Your task to perform on an android device: Add "acer predator" to the cart on amazon Image 0: 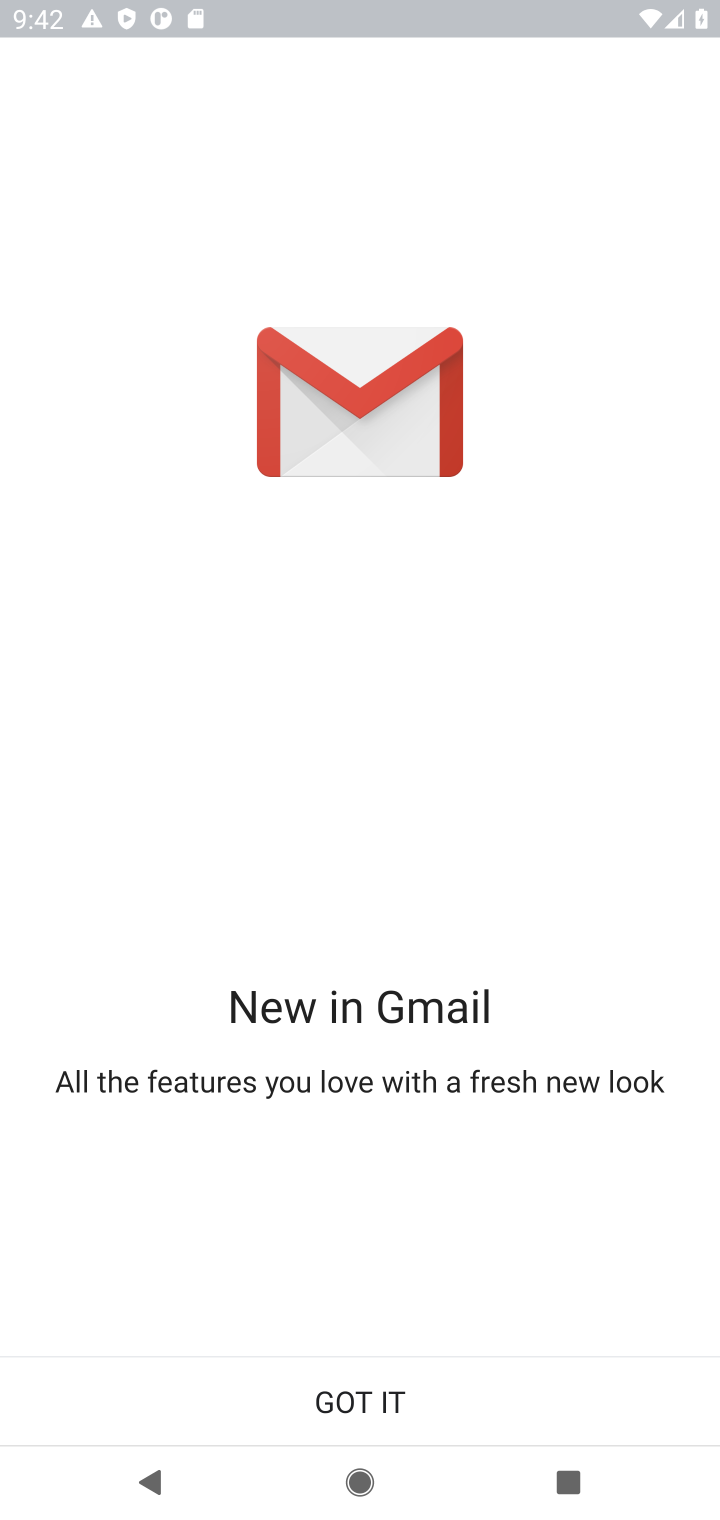
Step 0: press home button
Your task to perform on an android device: Add "acer predator" to the cart on amazon Image 1: 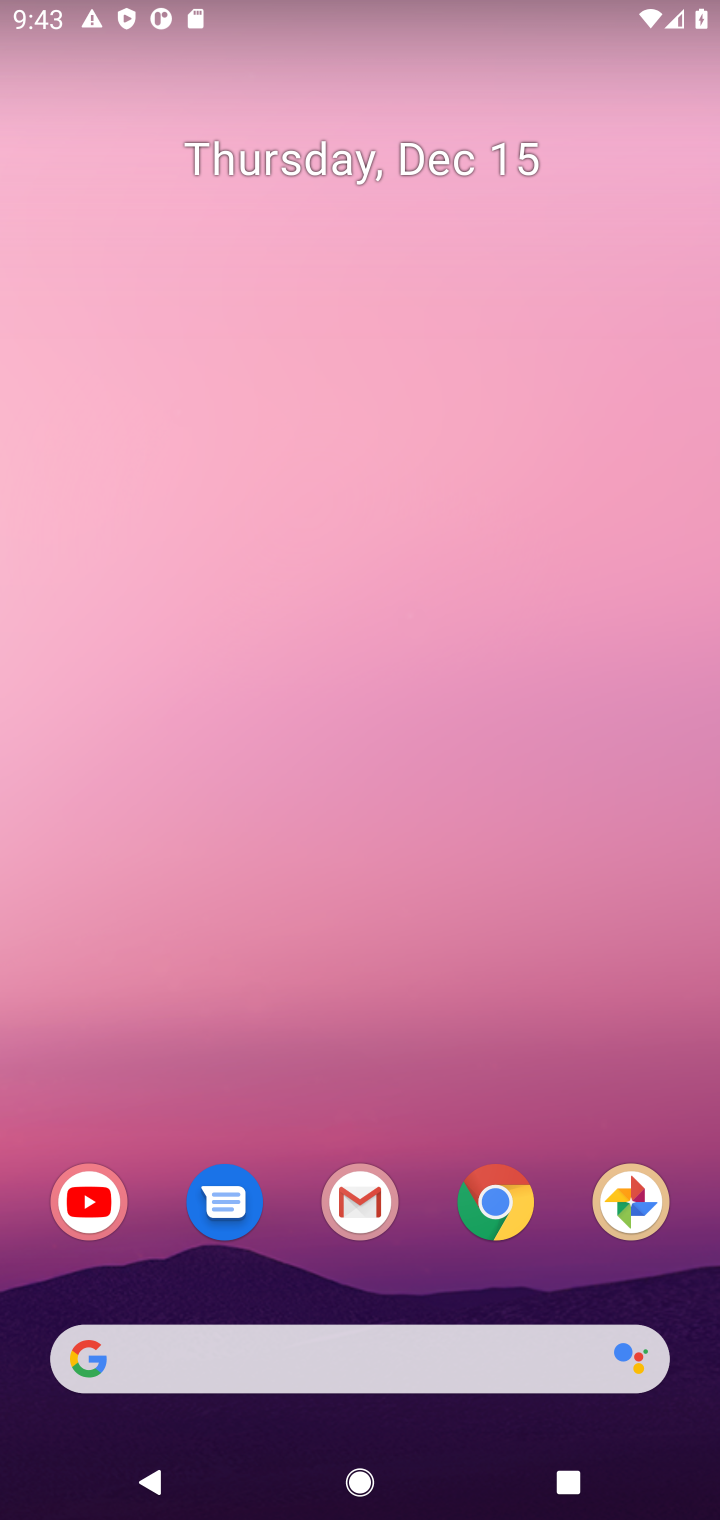
Step 1: click (488, 1208)
Your task to perform on an android device: Add "acer predator" to the cart on amazon Image 2: 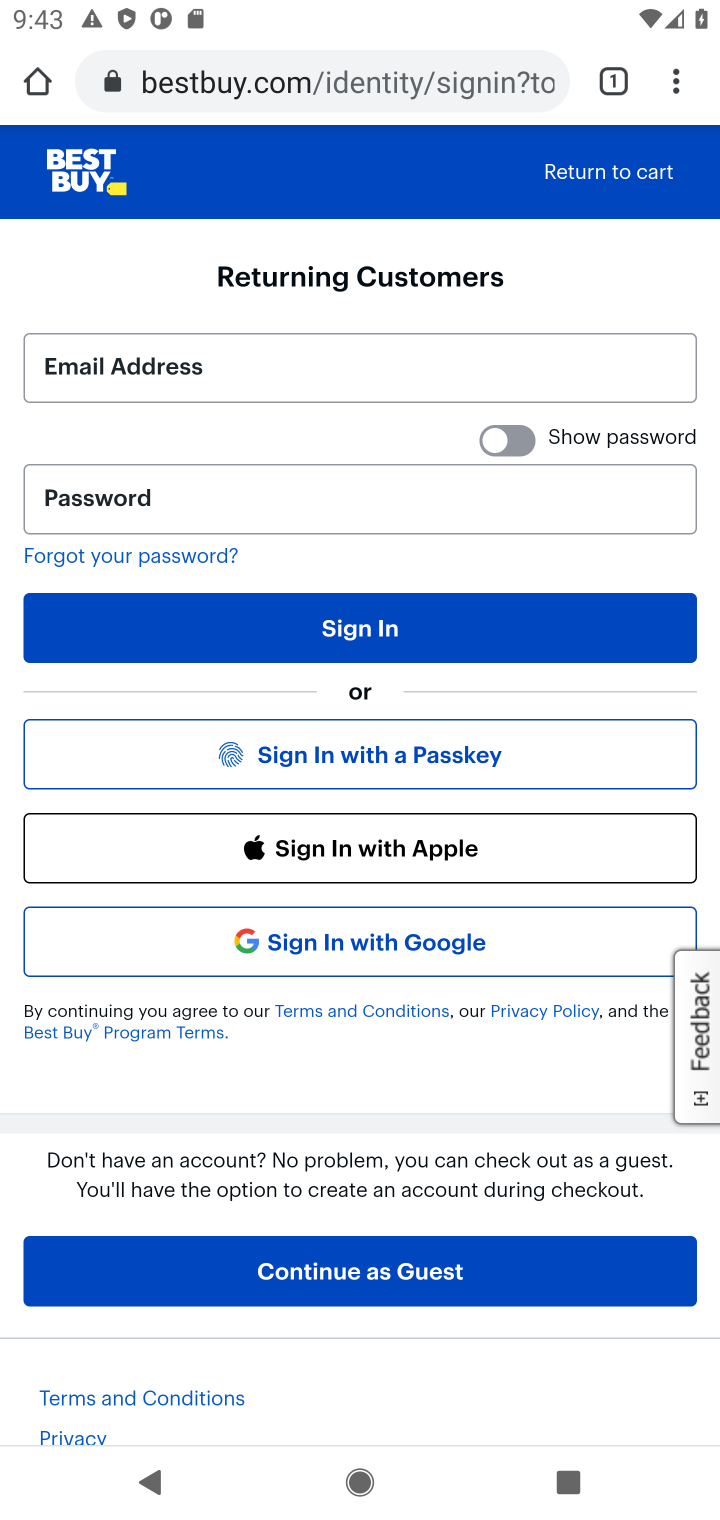
Step 2: click (228, 88)
Your task to perform on an android device: Add "acer predator" to the cart on amazon Image 3: 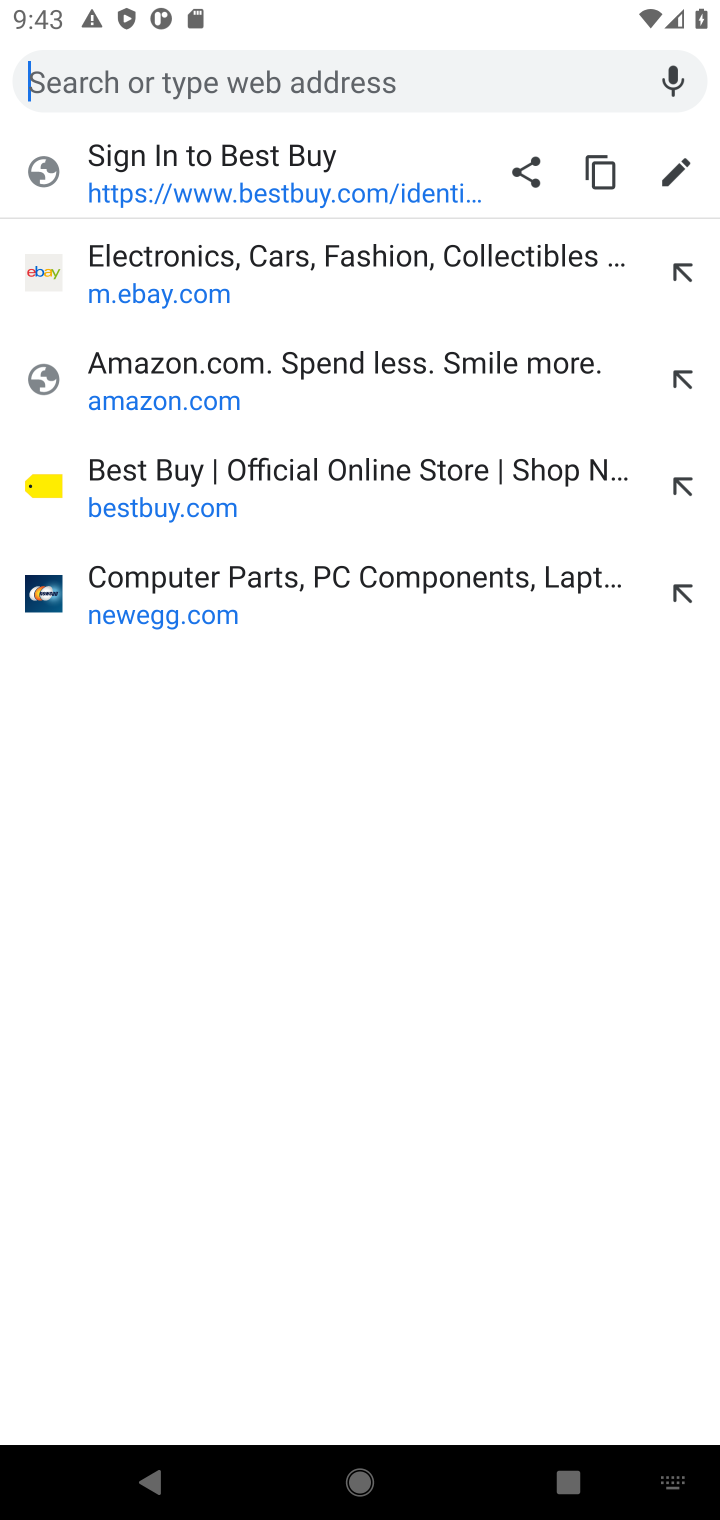
Step 3: click (145, 372)
Your task to perform on an android device: Add "acer predator" to the cart on amazon Image 4: 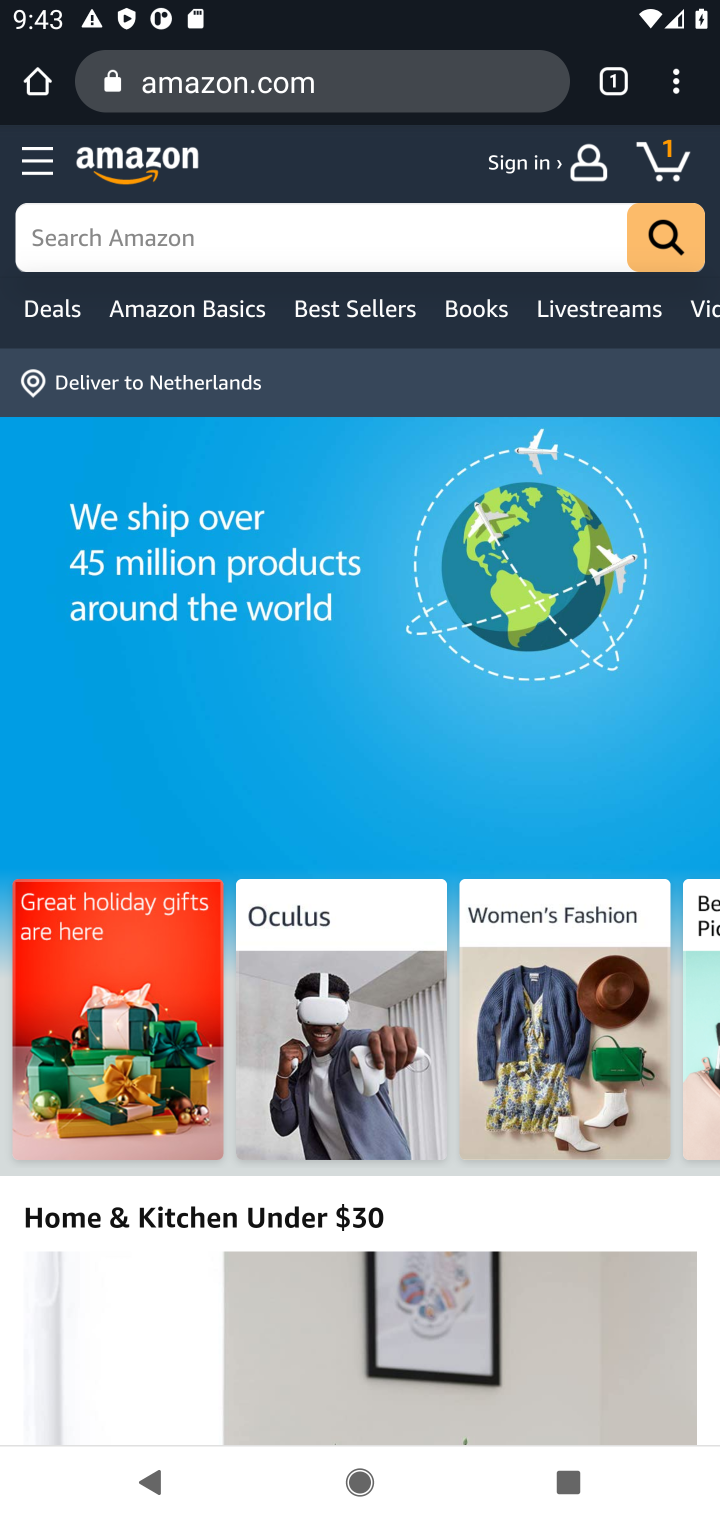
Step 4: click (120, 243)
Your task to perform on an android device: Add "acer predator" to the cart on amazon Image 5: 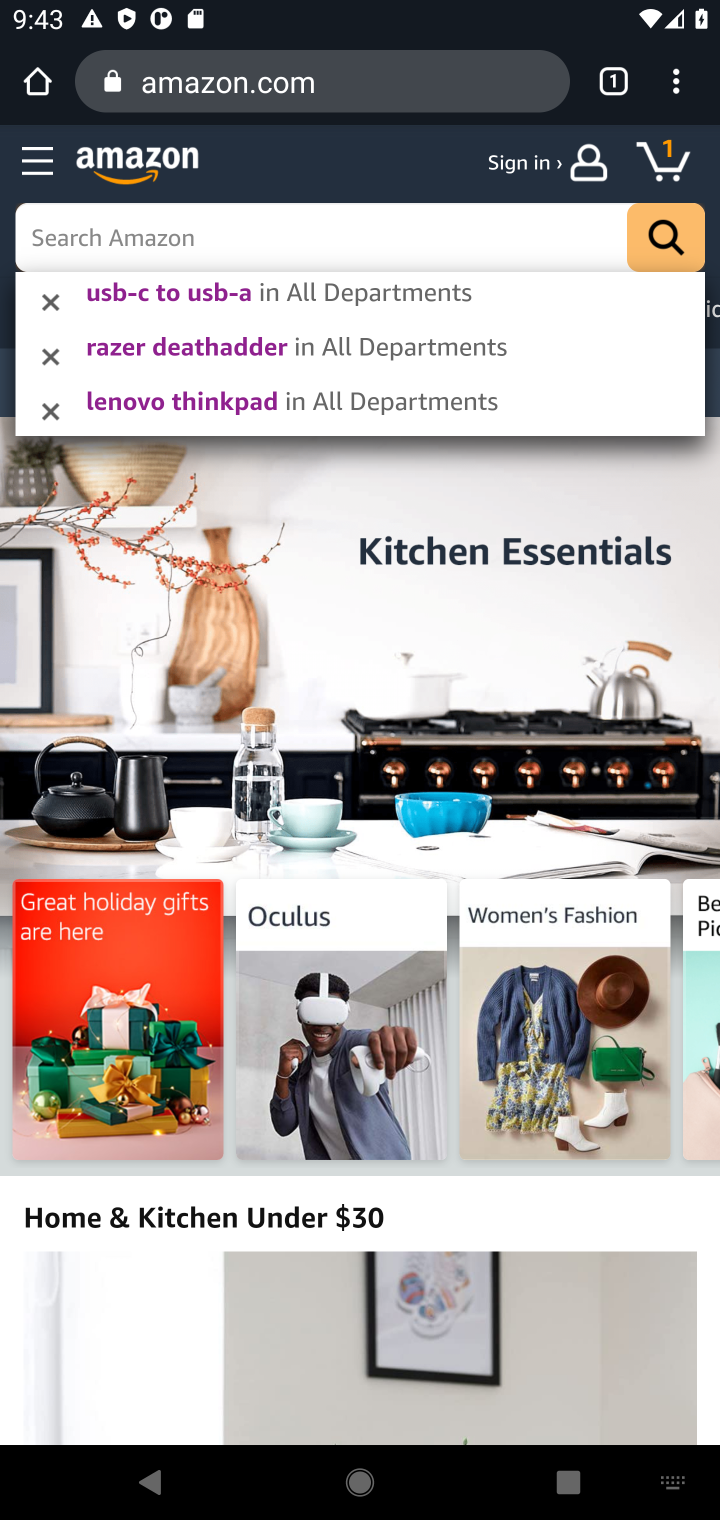
Step 5: type "acer predator"
Your task to perform on an android device: Add "acer predator" to the cart on amazon Image 6: 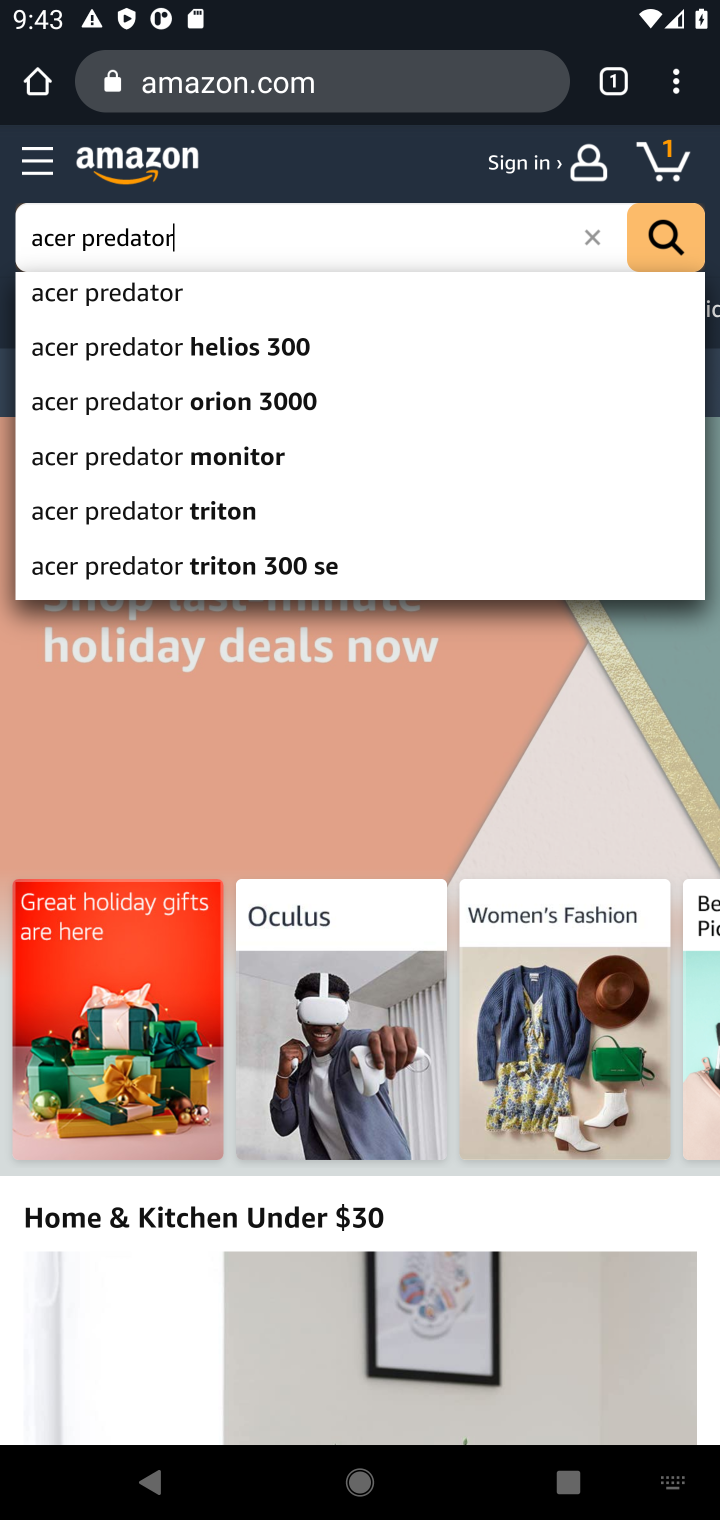
Step 6: click (134, 297)
Your task to perform on an android device: Add "acer predator" to the cart on amazon Image 7: 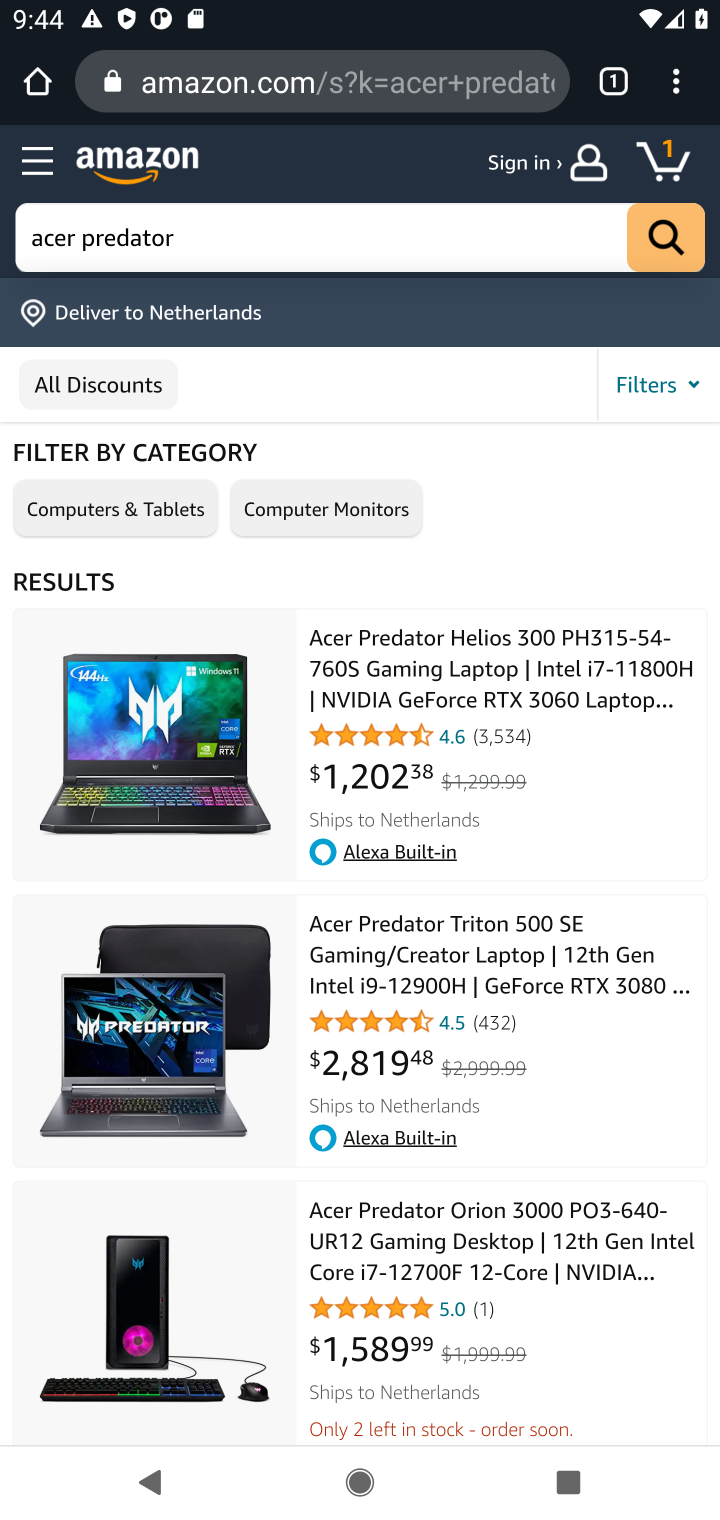
Step 7: click (413, 685)
Your task to perform on an android device: Add "acer predator" to the cart on amazon Image 8: 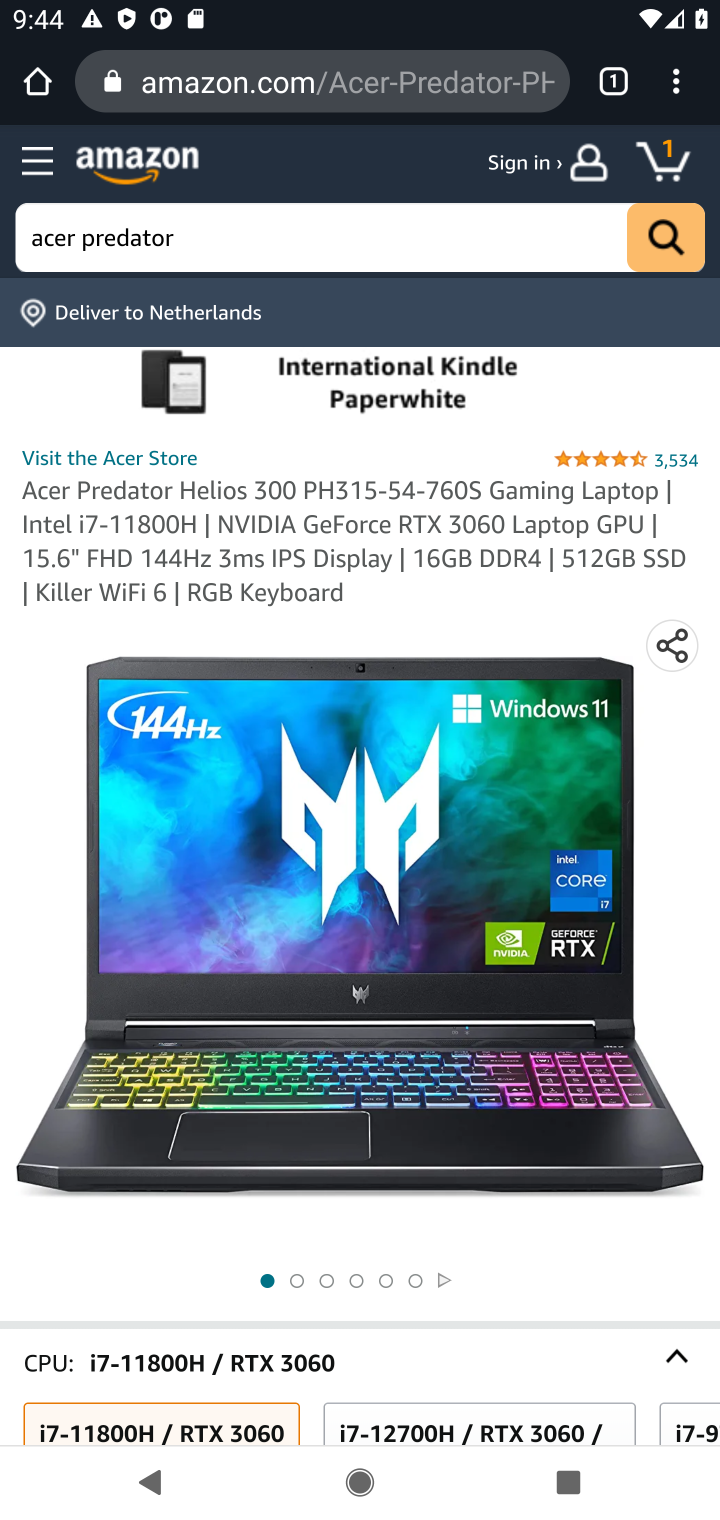
Step 8: drag from (328, 1046) to (305, 402)
Your task to perform on an android device: Add "acer predator" to the cart on amazon Image 9: 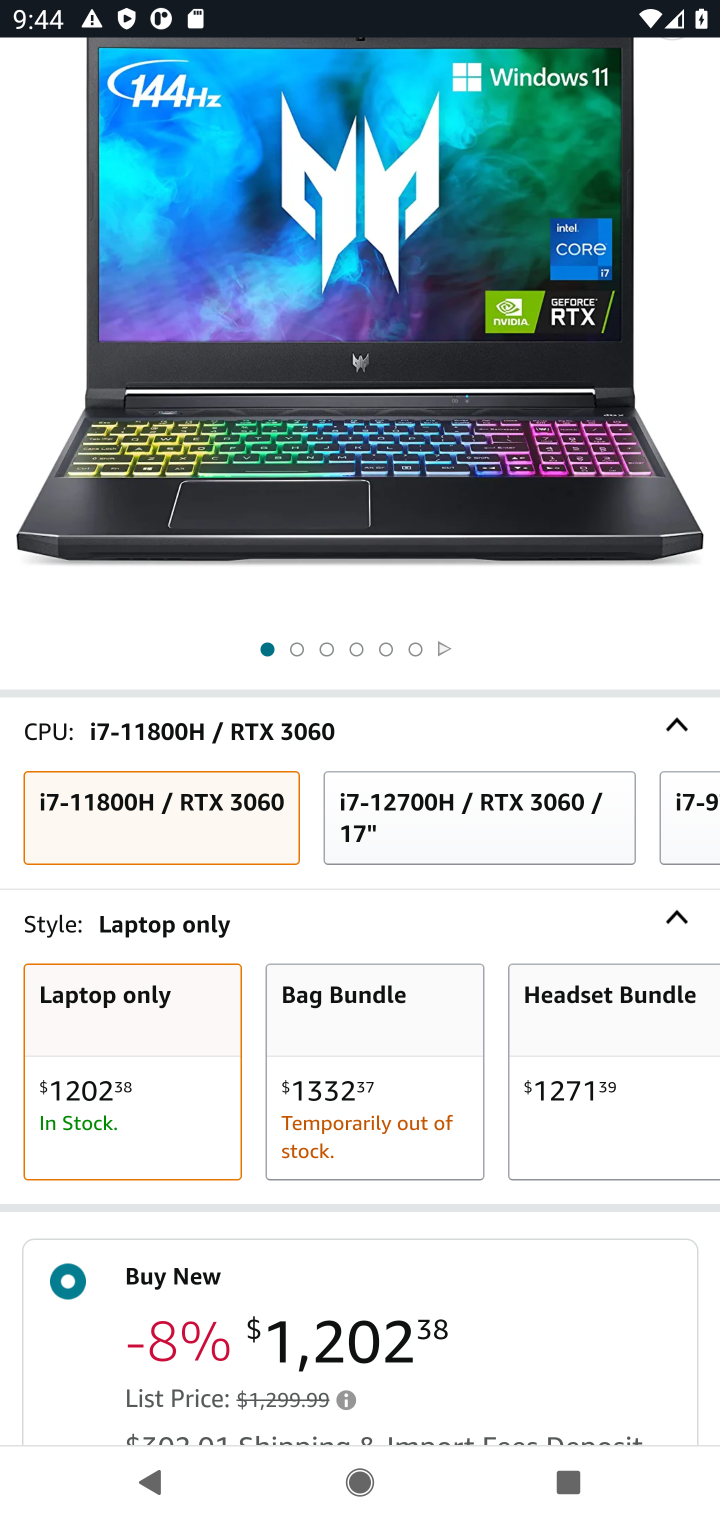
Step 9: drag from (379, 960) to (358, 398)
Your task to perform on an android device: Add "acer predator" to the cart on amazon Image 10: 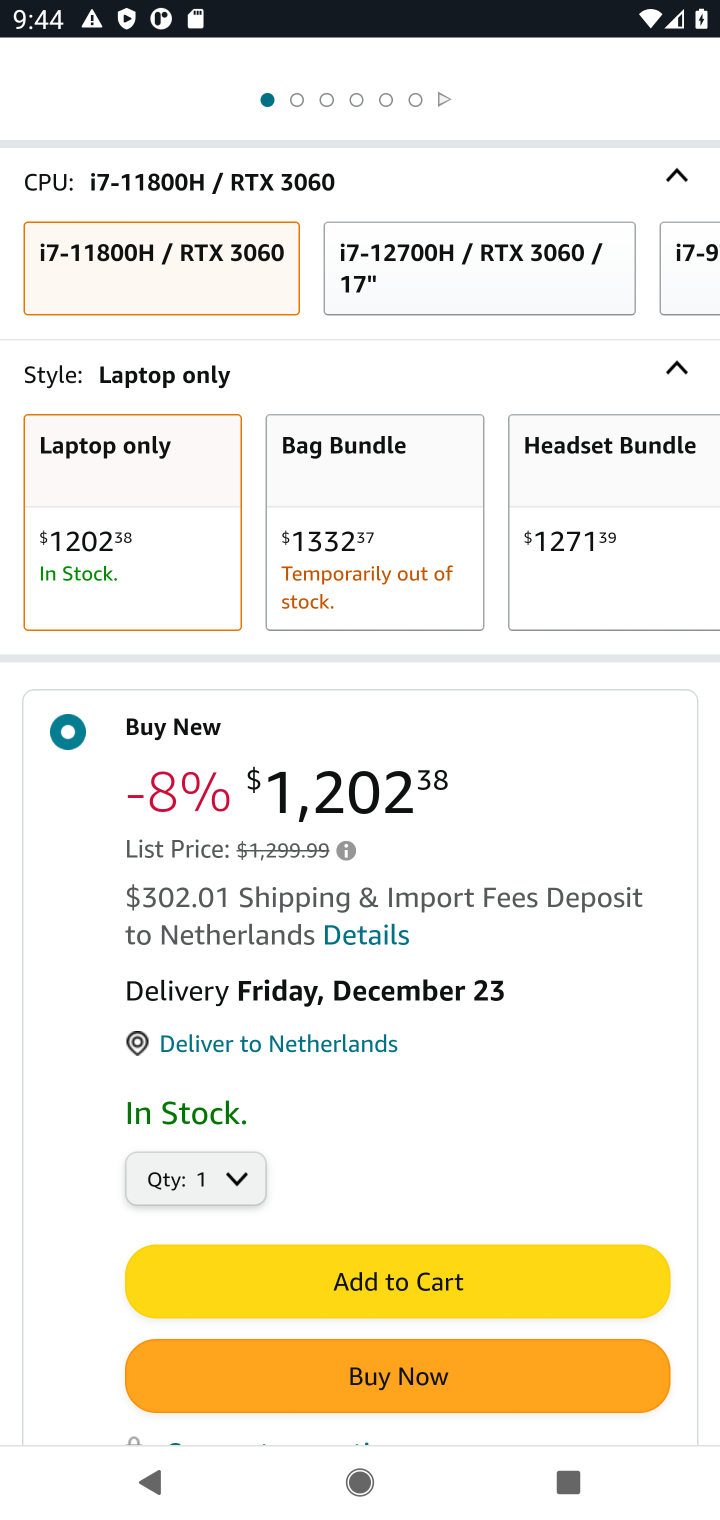
Step 10: click (316, 1271)
Your task to perform on an android device: Add "acer predator" to the cart on amazon Image 11: 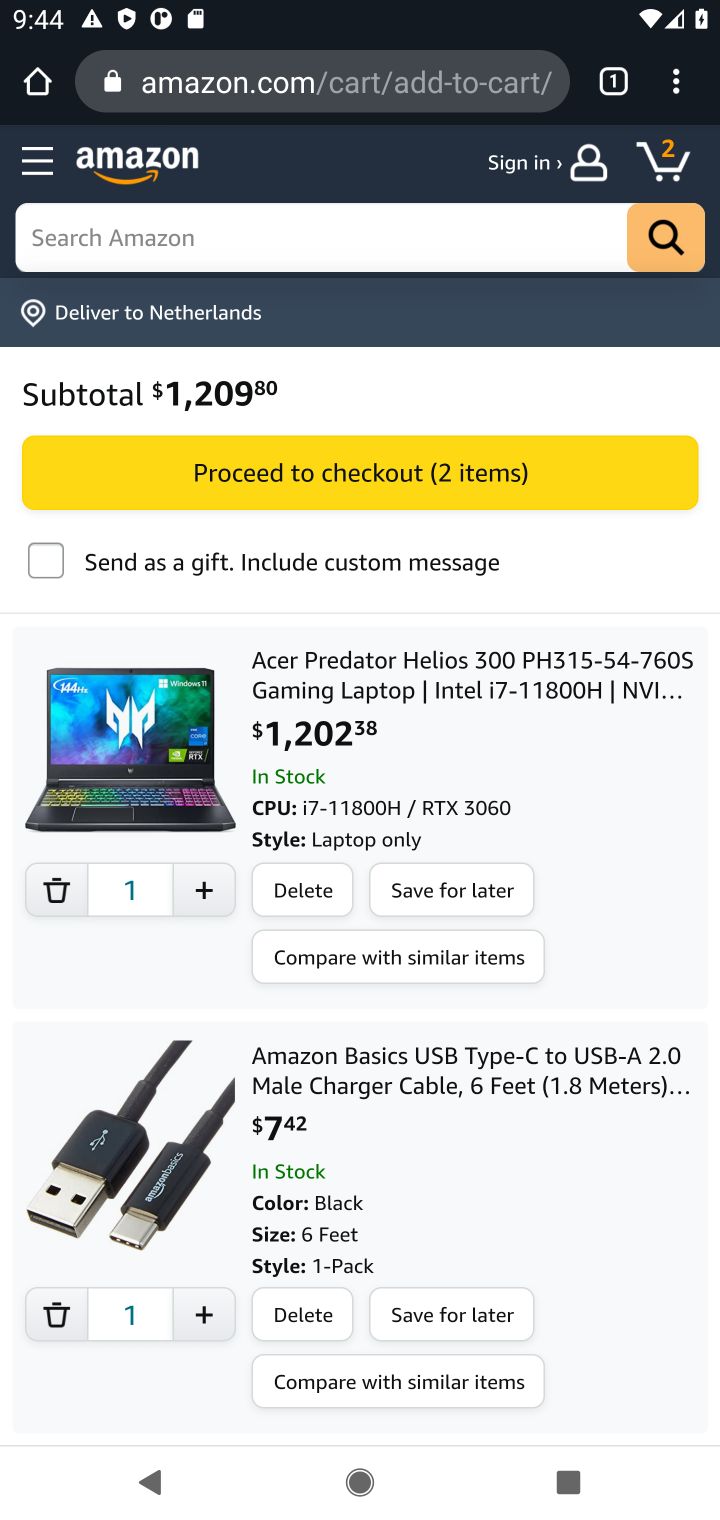
Step 11: task complete